Your task to perform on an android device: Set the phone to "Do not disturb". Image 0: 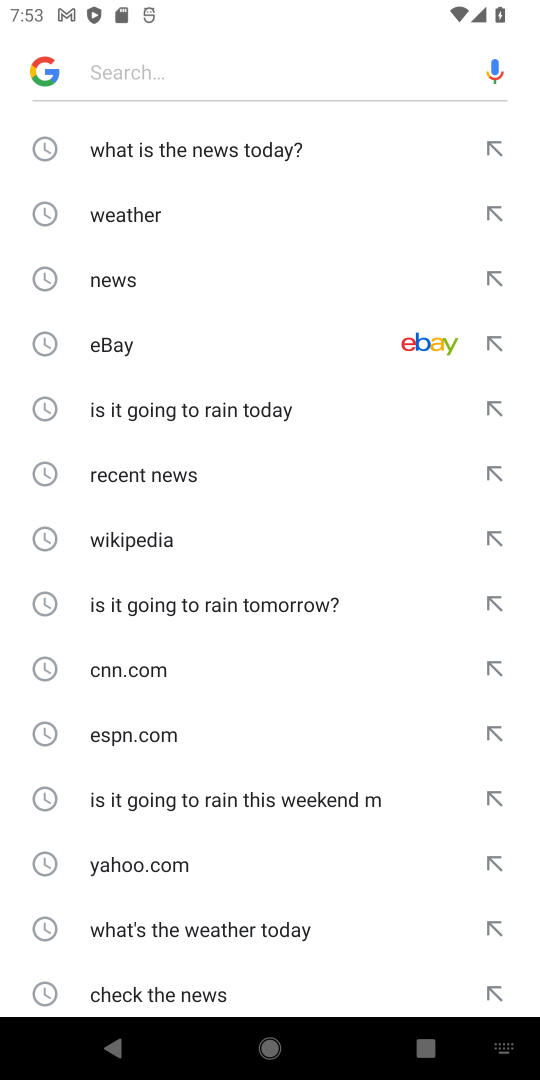
Step 0: press home button
Your task to perform on an android device: Set the phone to "Do not disturb". Image 1: 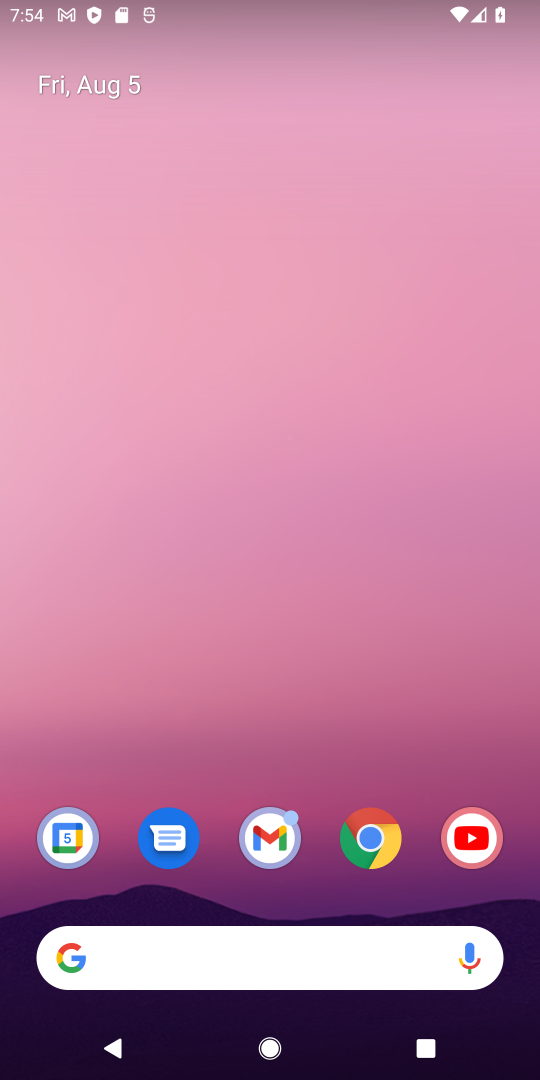
Step 1: click (250, 296)
Your task to perform on an android device: Set the phone to "Do not disturb". Image 2: 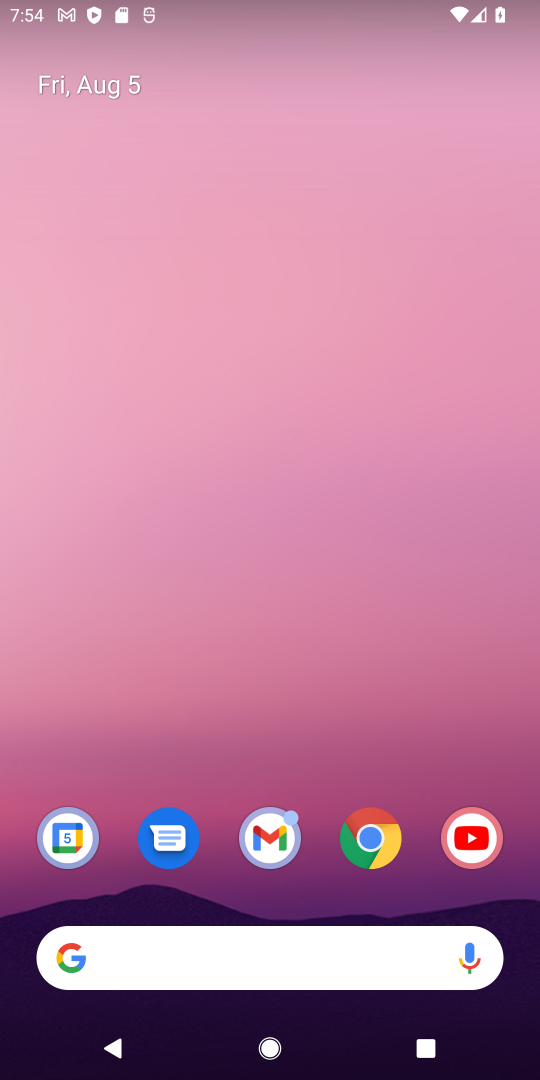
Step 2: drag from (283, 937) to (253, 335)
Your task to perform on an android device: Set the phone to "Do not disturb". Image 3: 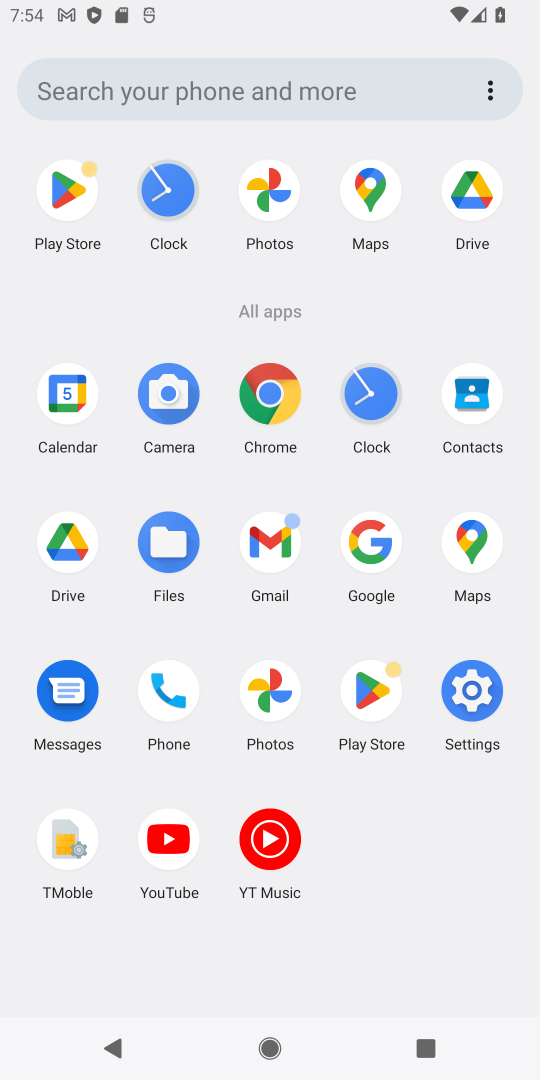
Step 3: click (472, 693)
Your task to perform on an android device: Set the phone to "Do not disturb". Image 4: 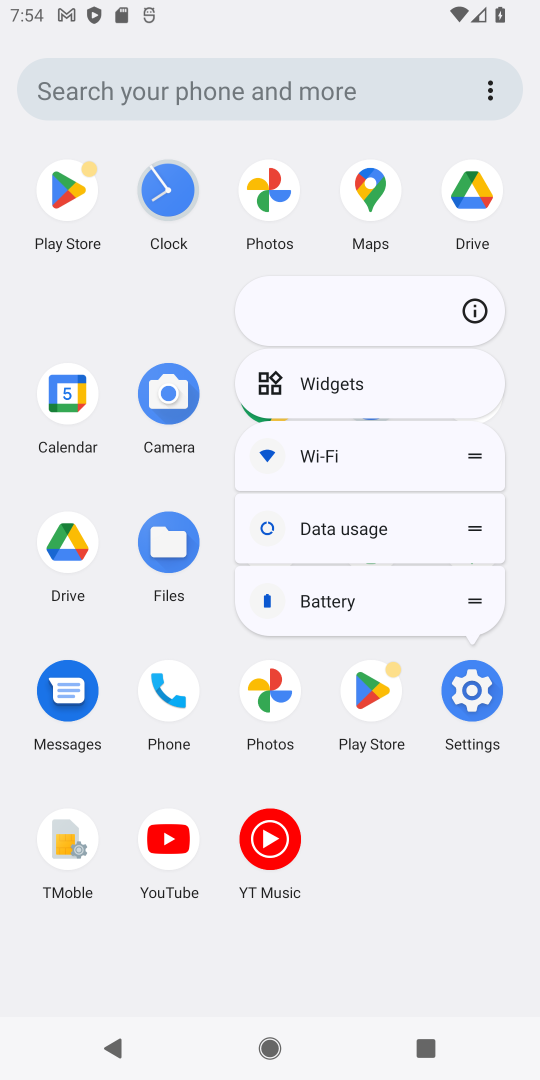
Step 4: click (472, 693)
Your task to perform on an android device: Set the phone to "Do not disturb". Image 5: 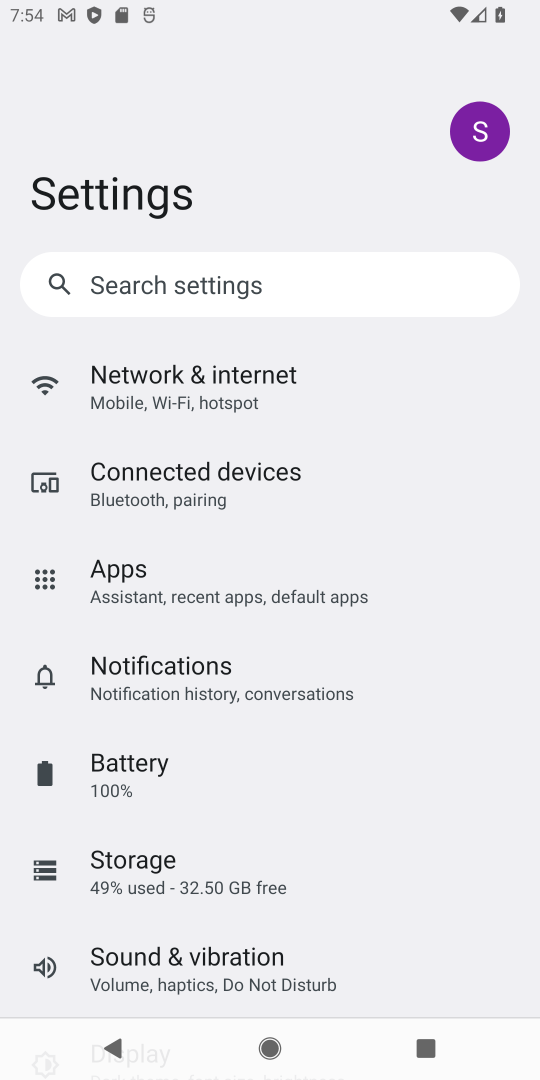
Step 5: click (227, 978)
Your task to perform on an android device: Set the phone to "Do not disturb". Image 6: 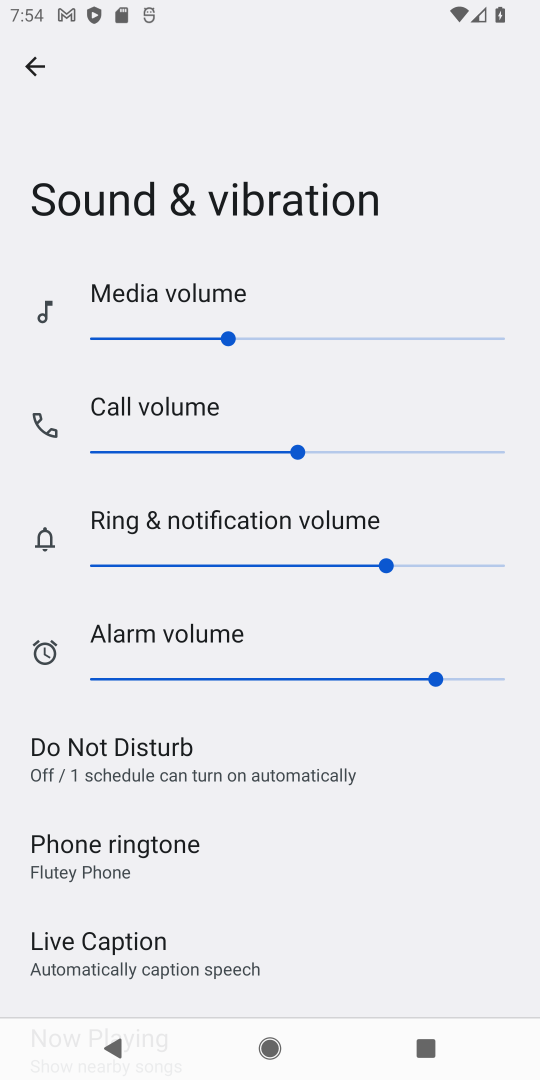
Step 6: click (171, 780)
Your task to perform on an android device: Set the phone to "Do not disturb". Image 7: 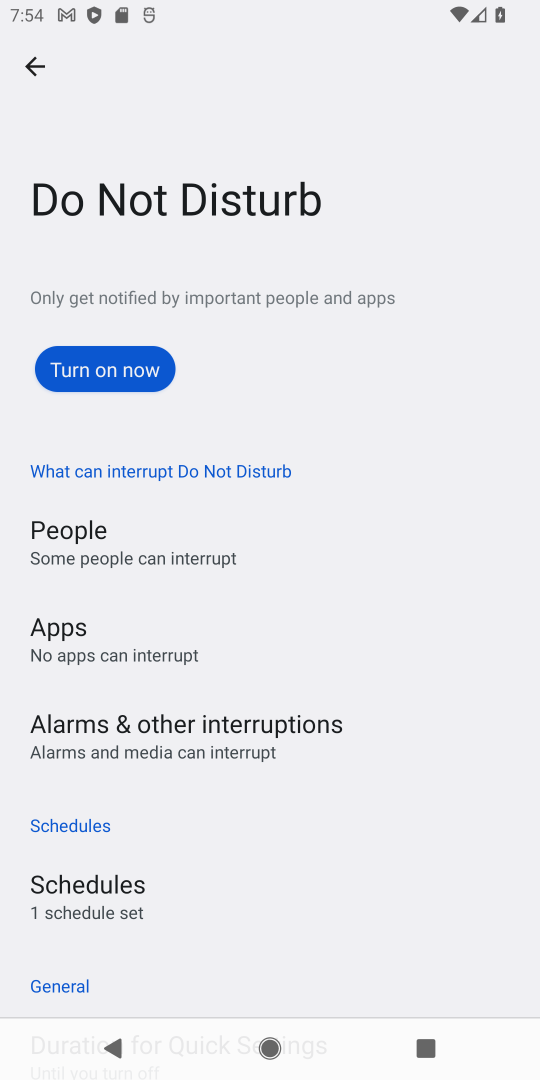
Step 7: click (100, 373)
Your task to perform on an android device: Set the phone to "Do not disturb". Image 8: 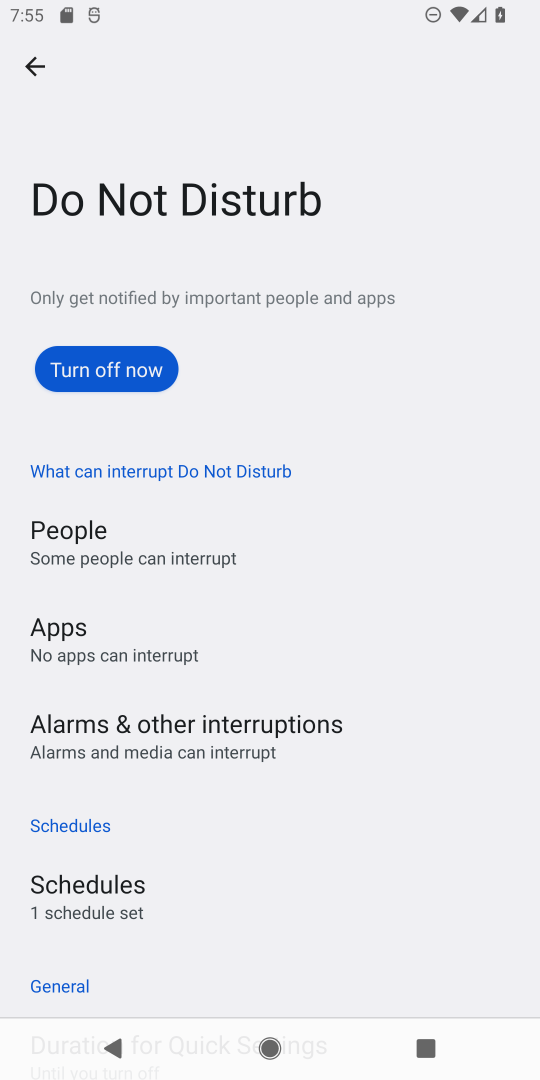
Step 8: task complete